Your task to perform on an android device: Check the news Image 0: 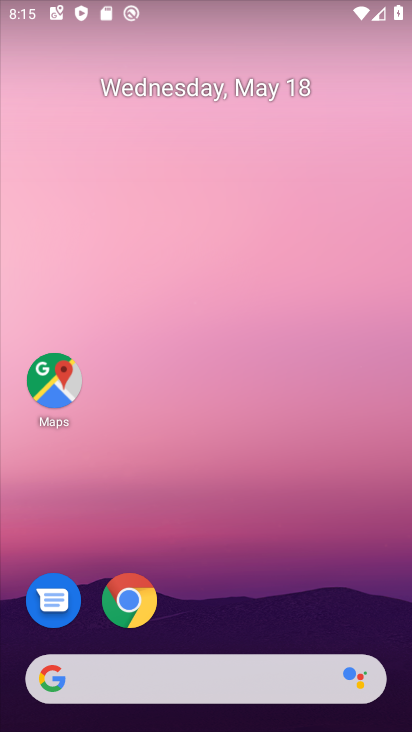
Step 0: click (174, 668)
Your task to perform on an android device: Check the news Image 1: 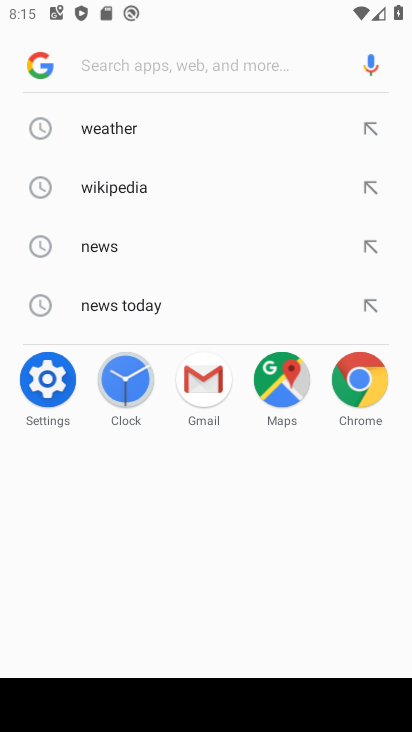
Step 1: click (106, 241)
Your task to perform on an android device: Check the news Image 2: 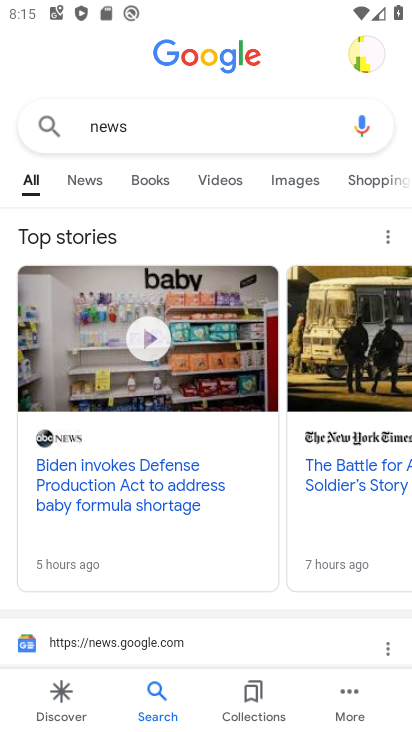
Step 2: task complete